Your task to perform on an android device: turn on showing notifications on the lock screen Image 0: 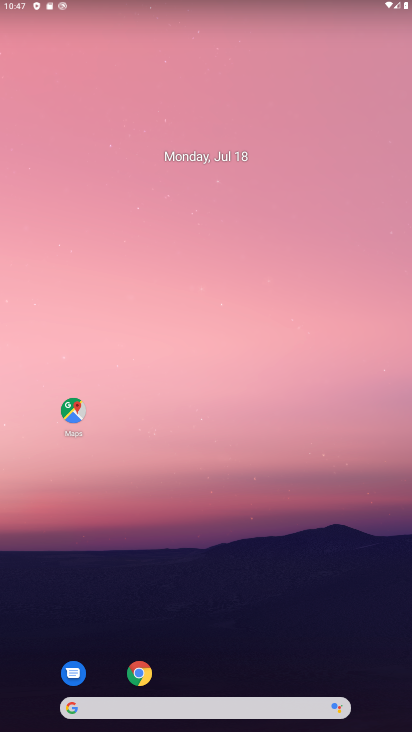
Step 0: press home button
Your task to perform on an android device: turn on showing notifications on the lock screen Image 1: 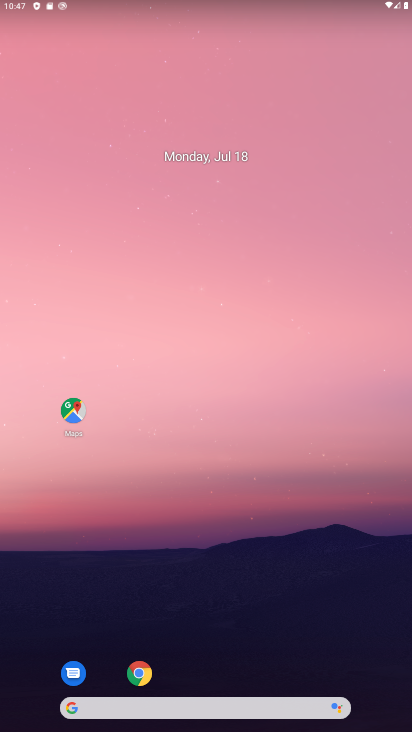
Step 1: drag from (222, 674) to (264, 11)
Your task to perform on an android device: turn on showing notifications on the lock screen Image 2: 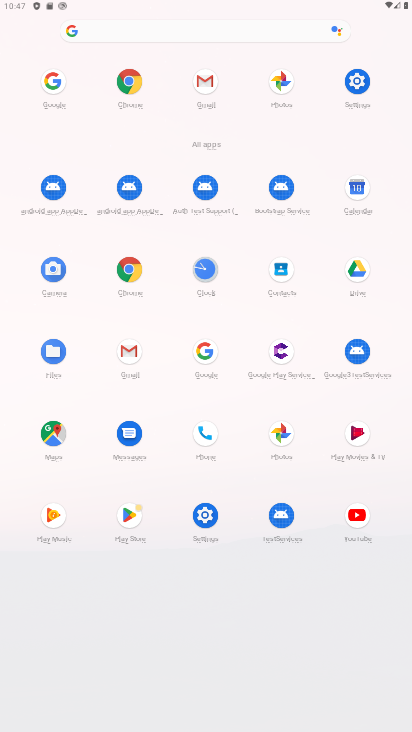
Step 2: click (356, 75)
Your task to perform on an android device: turn on showing notifications on the lock screen Image 3: 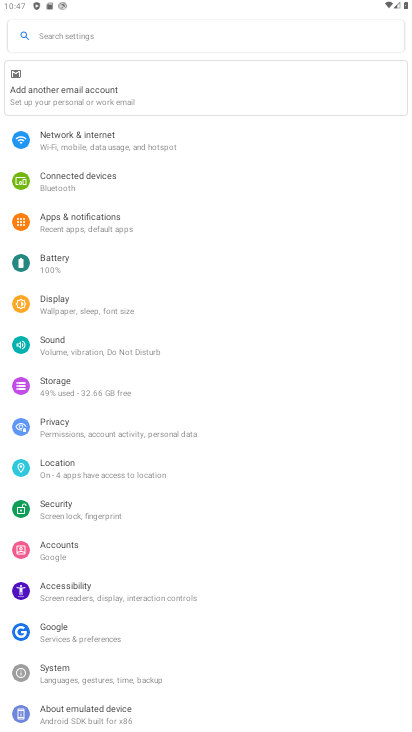
Step 3: click (133, 221)
Your task to perform on an android device: turn on showing notifications on the lock screen Image 4: 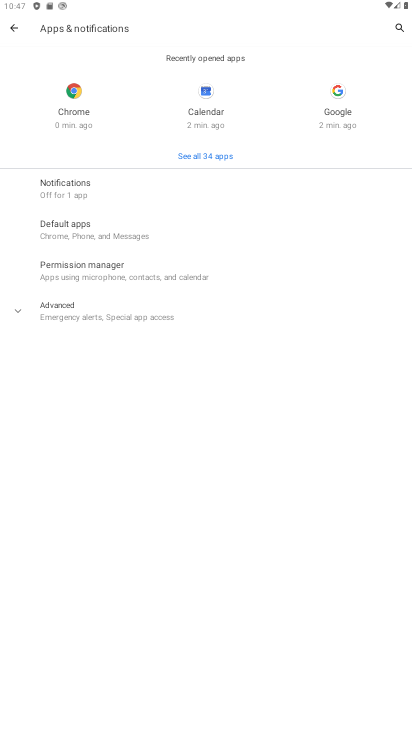
Step 4: click (104, 181)
Your task to perform on an android device: turn on showing notifications on the lock screen Image 5: 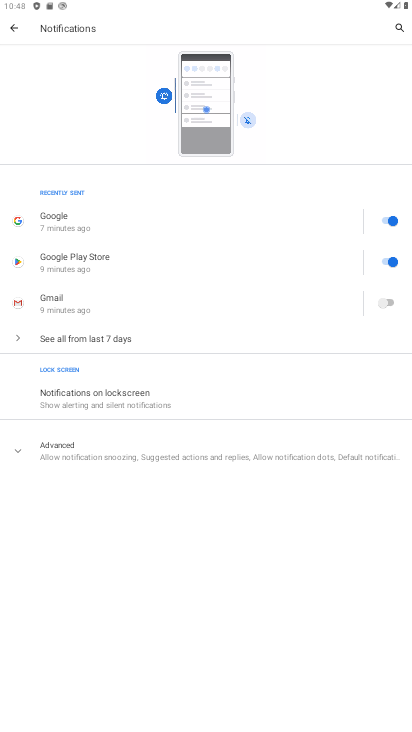
Step 5: click (180, 394)
Your task to perform on an android device: turn on showing notifications on the lock screen Image 6: 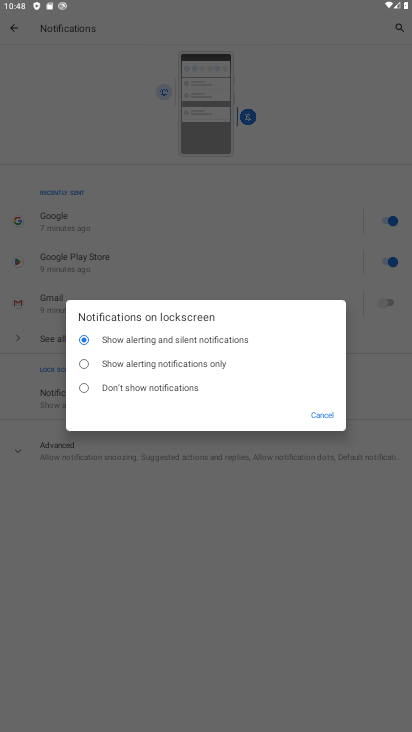
Step 6: click (84, 361)
Your task to perform on an android device: turn on showing notifications on the lock screen Image 7: 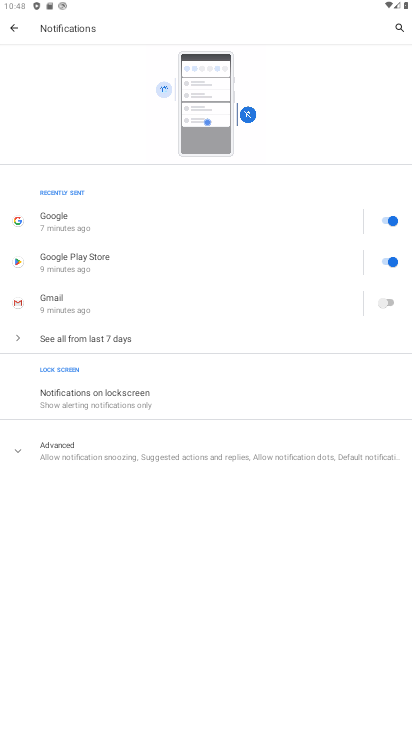
Step 7: task complete